Your task to perform on an android device: open a new tab in the chrome app Image 0: 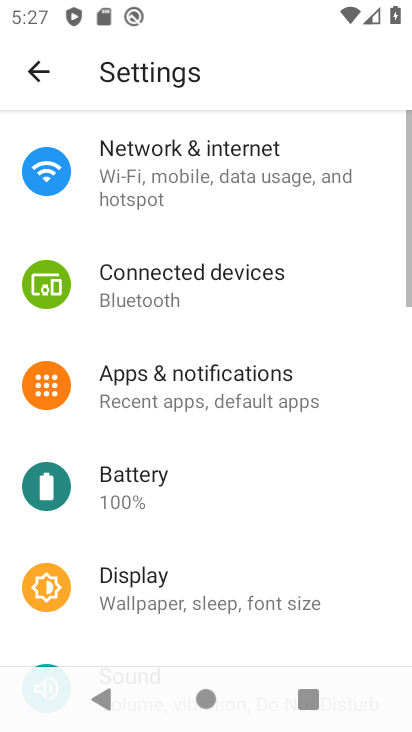
Step 0: press home button
Your task to perform on an android device: open a new tab in the chrome app Image 1: 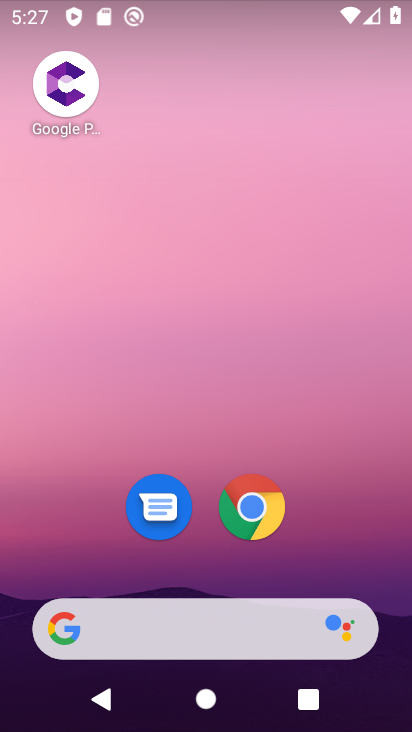
Step 1: click (262, 502)
Your task to perform on an android device: open a new tab in the chrome app Image 2: 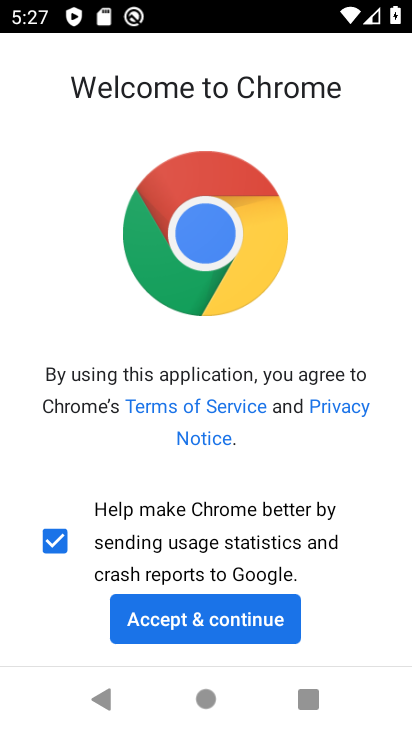
Step 2: click (234, 613)
Your task to perform on an android device: open a new tab in the chrome app Image 3: 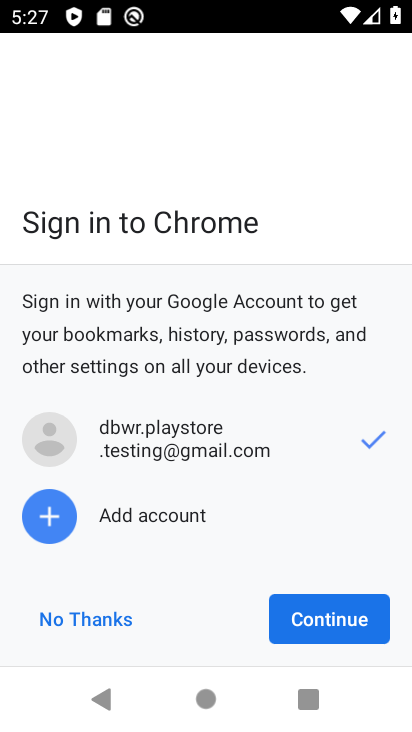
Step 3: click (302, 630)
Your task to perform on an android device: open a new tab in the chrome app Image 4: 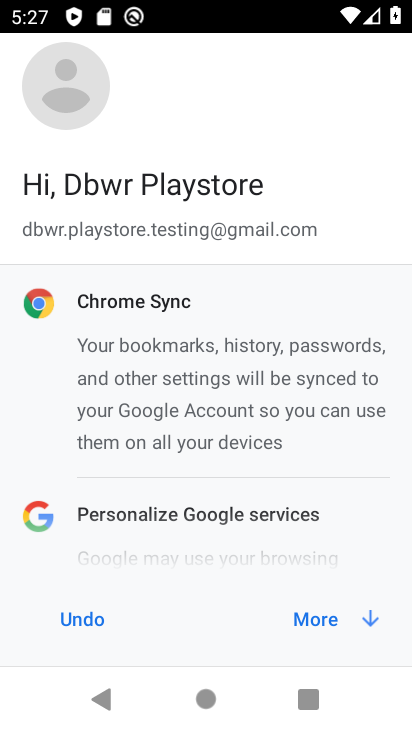
Step 4: click (303, 629)
Your task to perform on an android device: open a new tab in the chrome app Image 5: 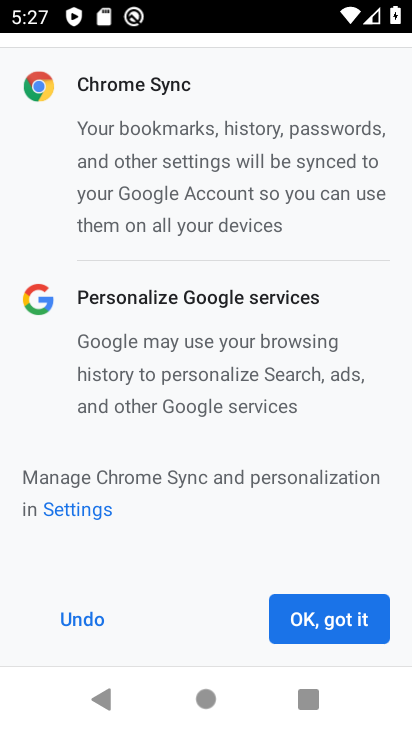
Step 5: click (315, 611)
Your task to perform on an android device: open a new tab in the chrome app Image 6: 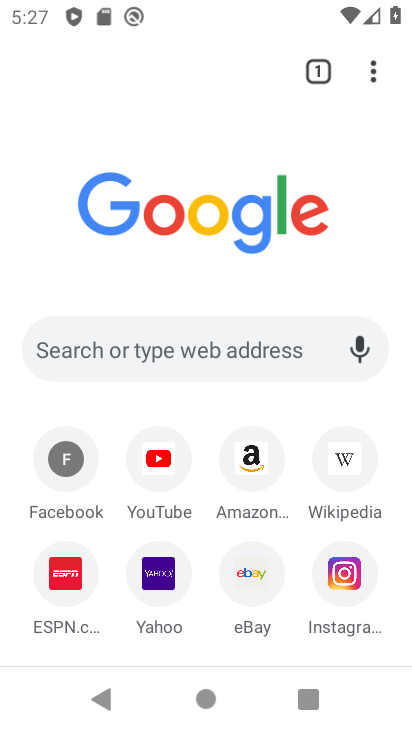
Step 6: click (373, 69)
Your task to perform on an android device: open a new tab in the chrome app Image 7: 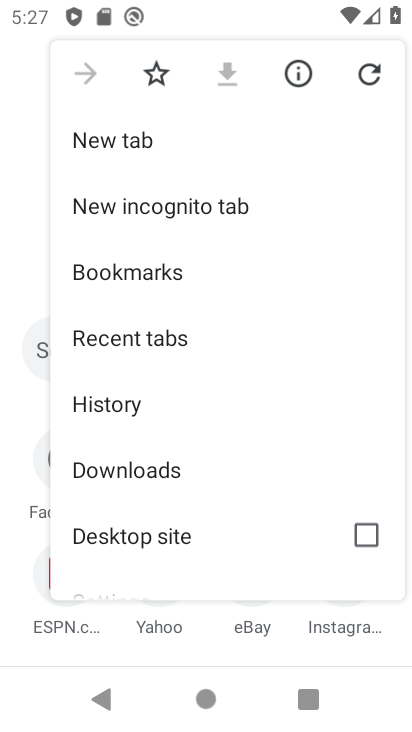
Step 7: click (151, 145)
Your task to perform on an android device: open a new tab in the chrome app Image 8: 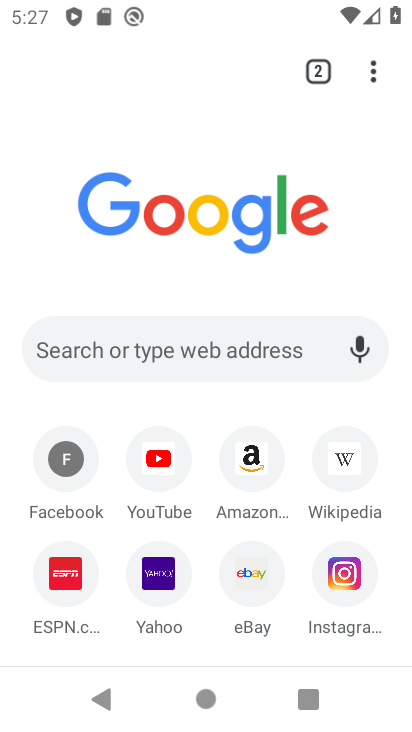
Step 8: task complete